Your task to perform on an android device: check the backup settings in the google photos Image 0: 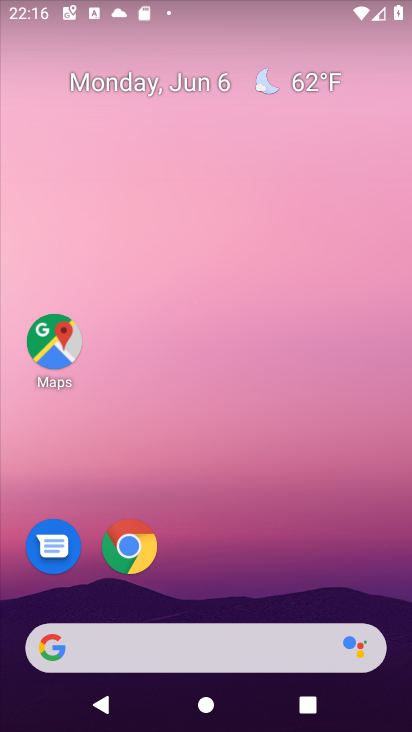
Step 0: drag from (398, 636) to (277, 110)
Your task to perform on an android device: check the backup settings in the google photos Image 1: 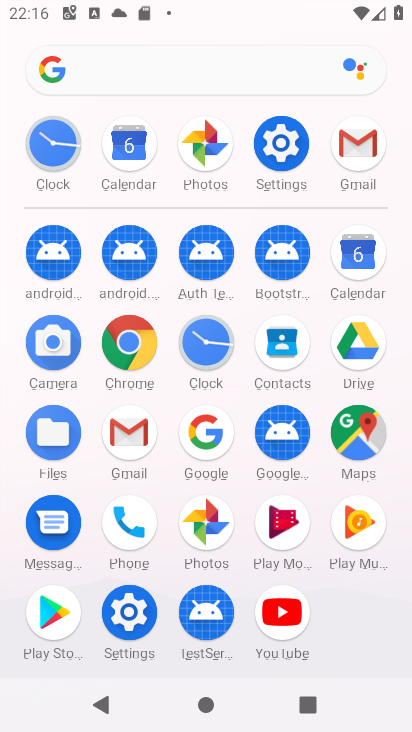
Step 1: click (206, 524)
Your task to perform on an android device: check the backup settings in the google photos Image 2: 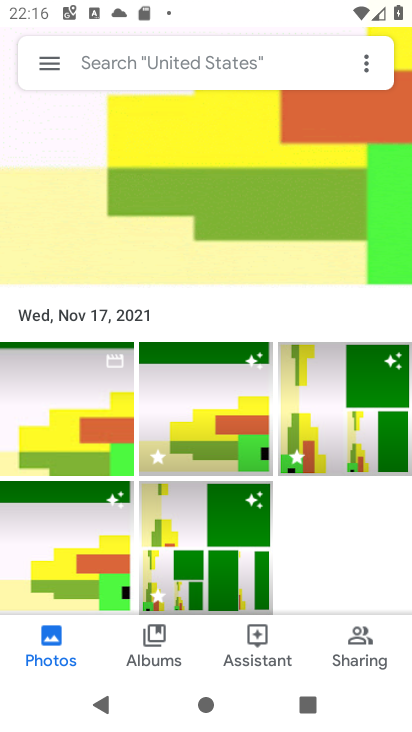
Step 2: click (47, 62)
Your task to perform on an android device: check the backup settings in the google photos Image 3: 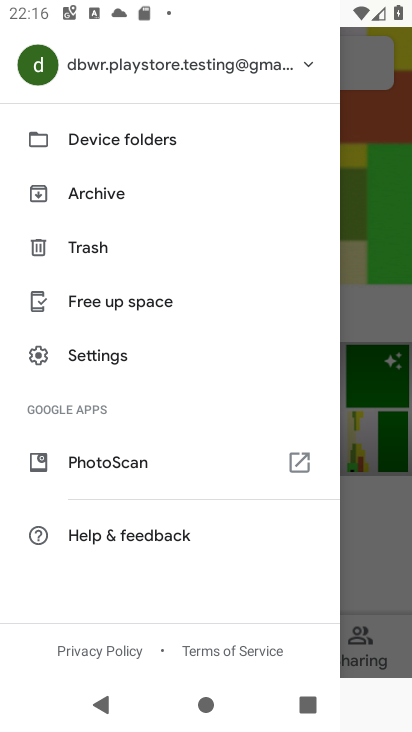
Step 3: click (98, 360)
Your task to perform on an android device: check the backup settings in the google photos Image 4: 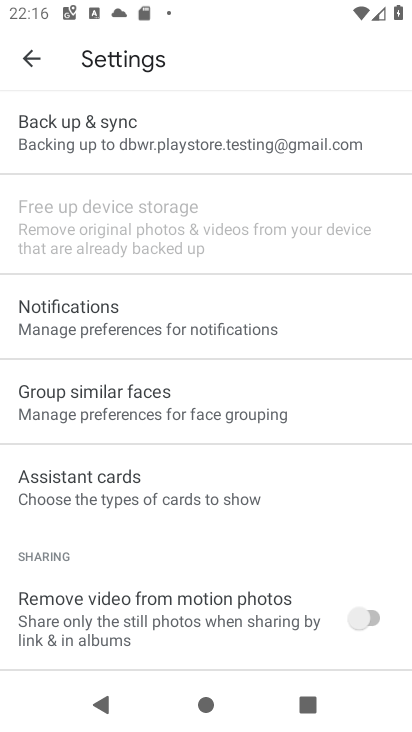
Step 4: click (107, 128)
Your task to perform on an android device: check the backup settings in the google photos Image 5: 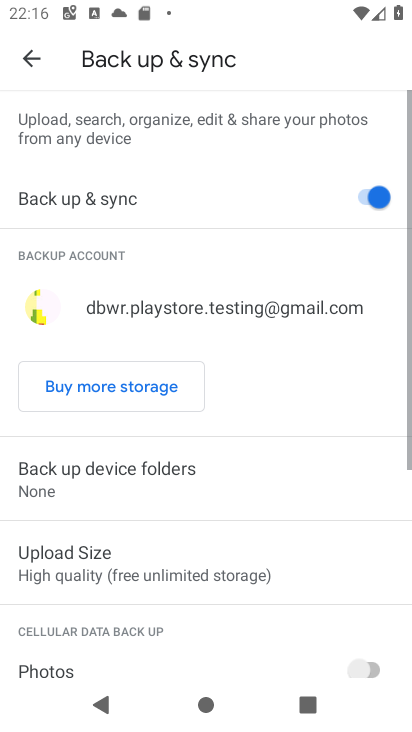
Step 5: task complete